Your task to perform on an android device: change keyboard looks Image 0: 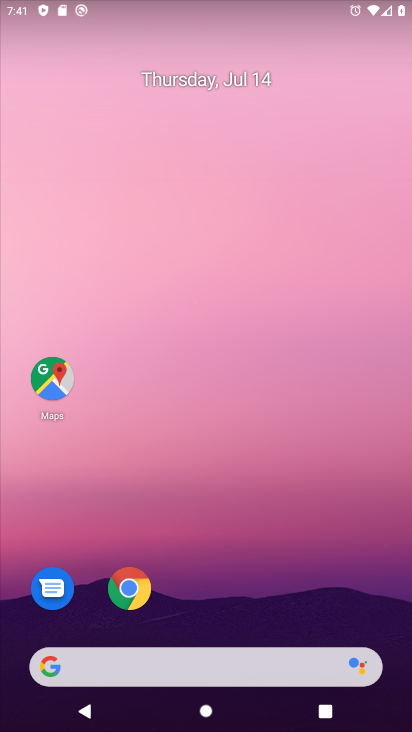
Step 0: click (216, 53)
Your task to perform on an android device: change keyboard looks Image 1: 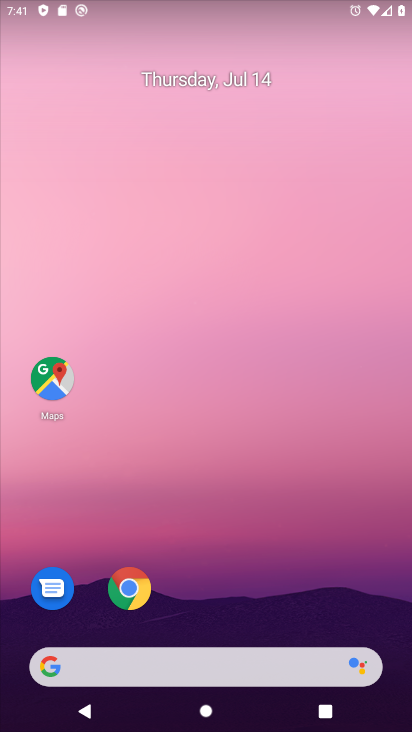
Step 1: task complete